Your task to perform on an android device: open app "TextNow: Call + Text Unlimited" Image 0: 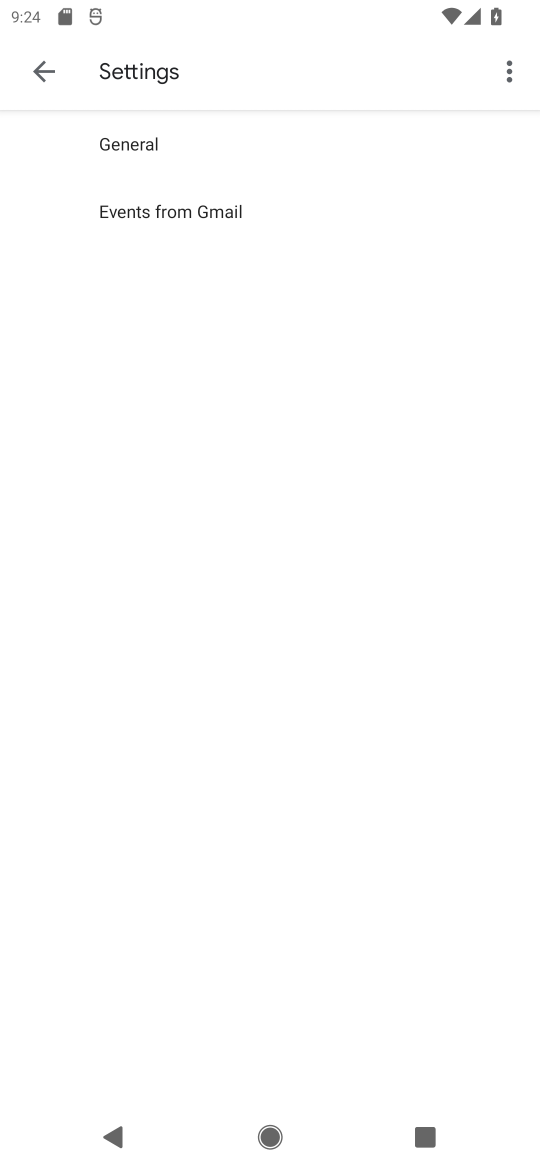
Step 0: click (62, 80)
Your task to perform on an android device: open app "TextNow: Call + Text Unlimited" Image 1: 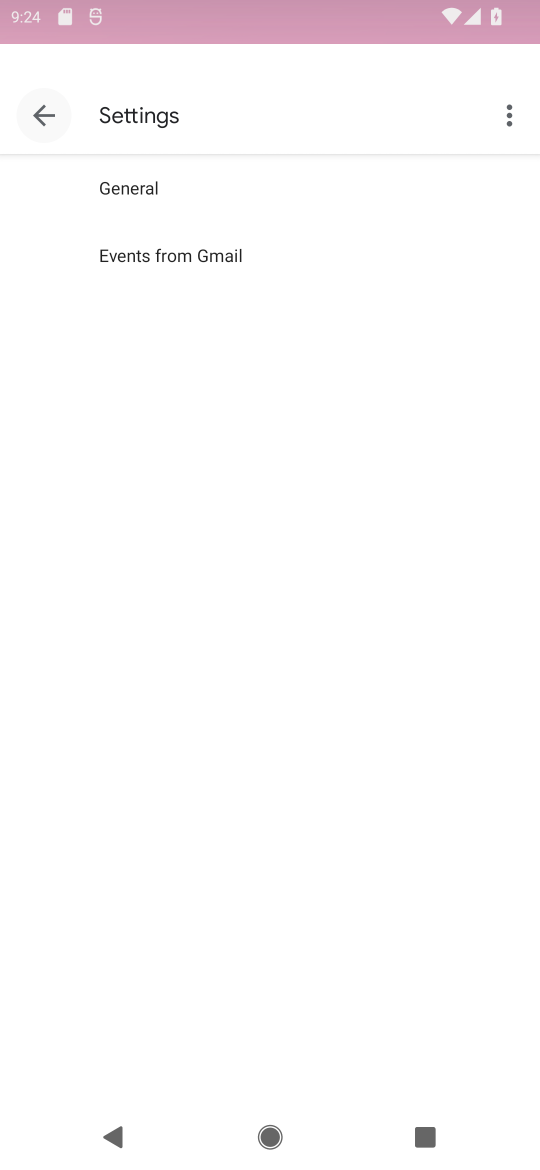
Step 1: press home button
Your task to perform on an android device: open app "TextNow: Call + Text Unlimited" Image 2: 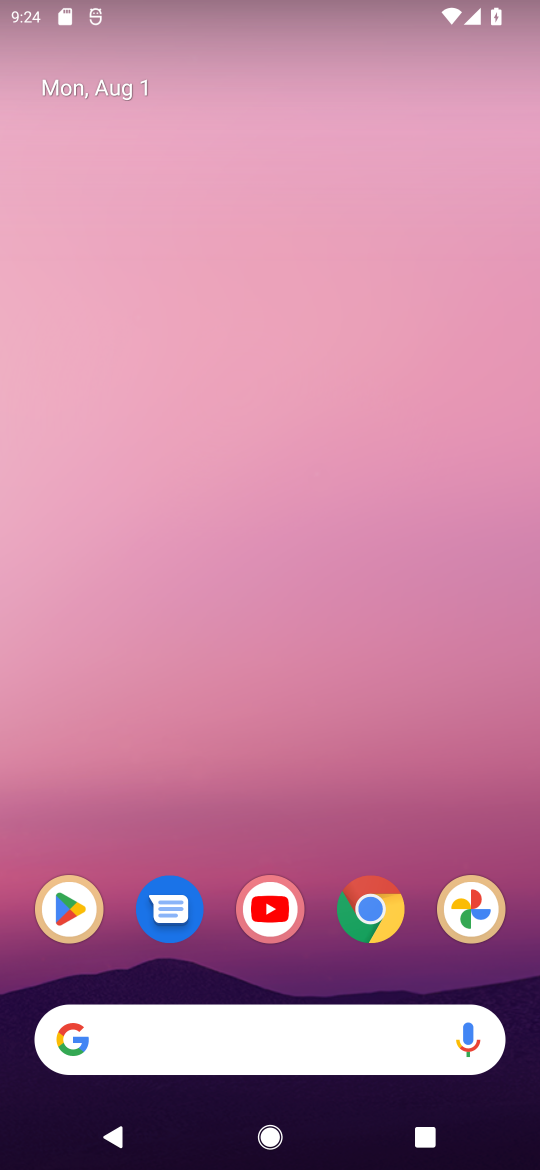
Step 2: click (62, 905)
Your task to perform on an android device: open app "TextNow: Call + Text Unlimited" Image 3: 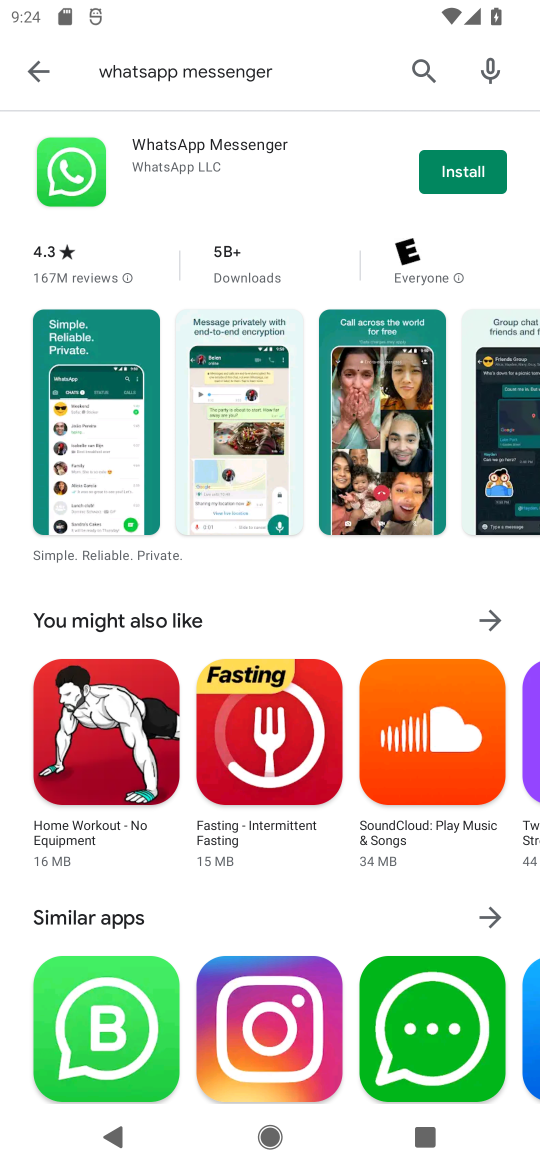
Step 3: click (186, 51)
Your task to perform on an android device: open app "TextNow: Call + Text Unlimited" Image 4: 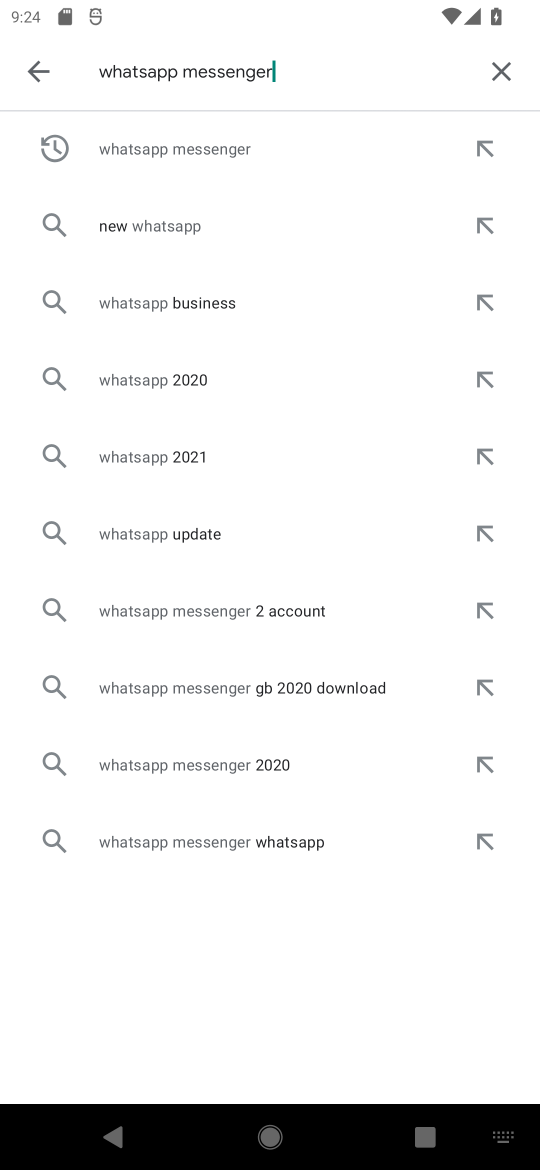
Step 4: click (488, 63)
Your task to perform on an android device: open app "TextNow: Call + Text Unlimited" Image 5: 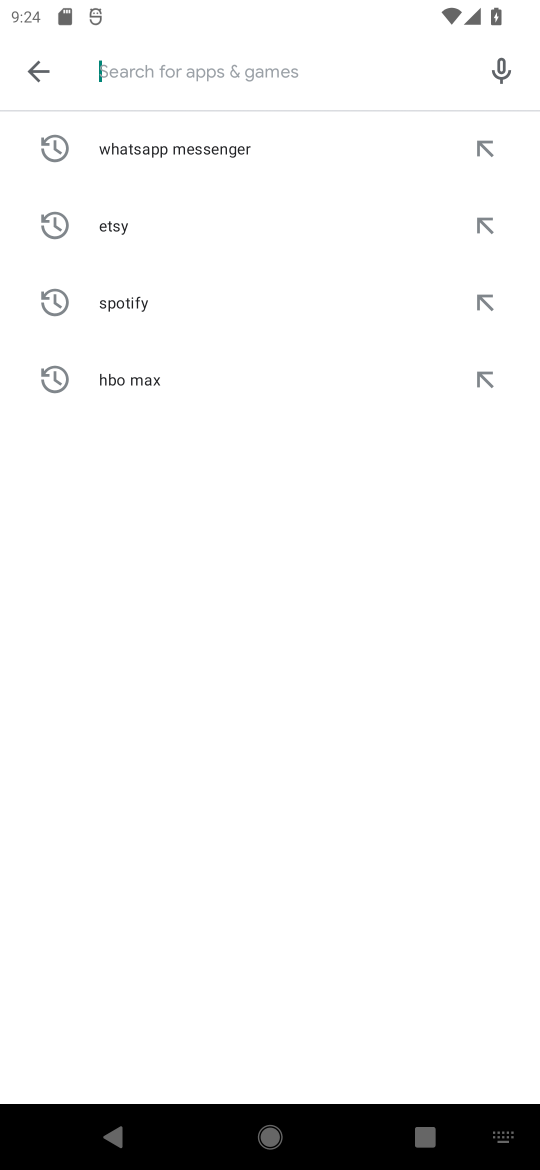
Step 5: type "textnow "
Your task to perform on an android device: open app "TextNow: Call + Text Unlimited" Image 6: 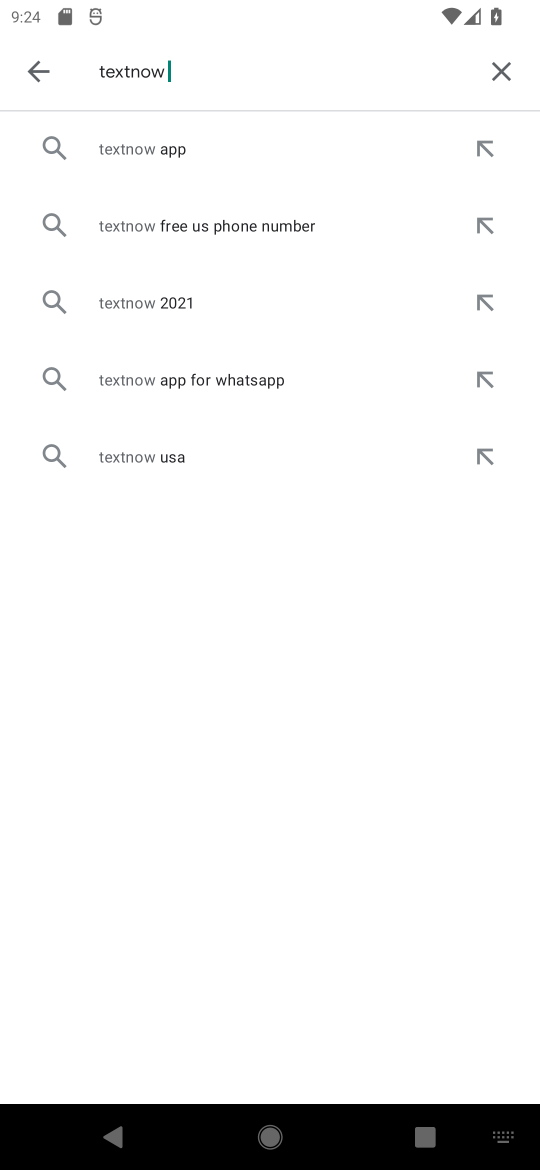
Step 6: click (140, 160)
Your task to perform on an android device: open app "TextNow: Call + Text Unlimited" Image 7: 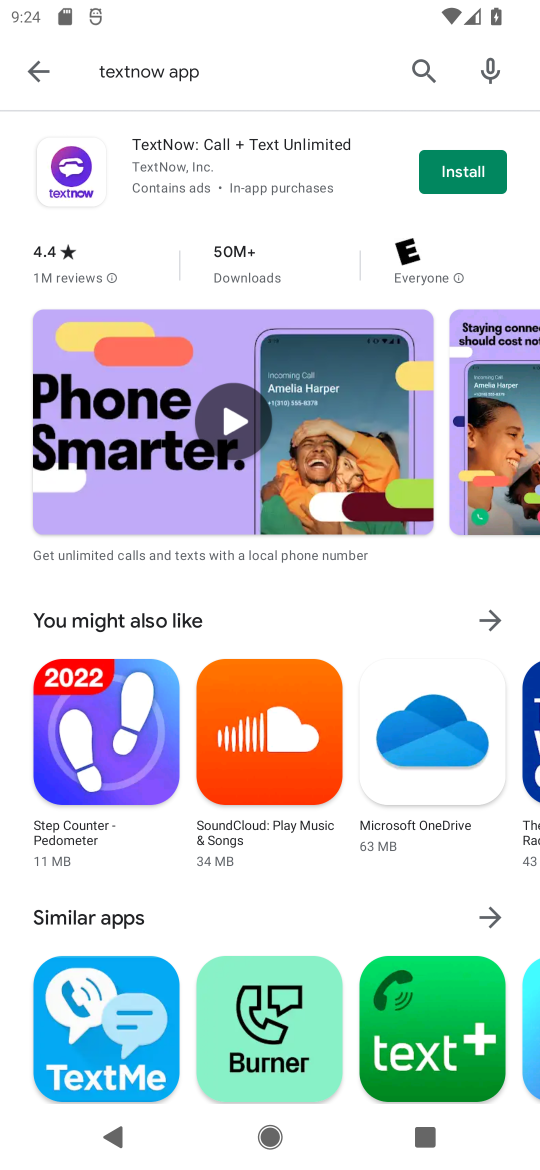
Step 7: task complete